Your task to perform on an android device: Open eBay Image 0: 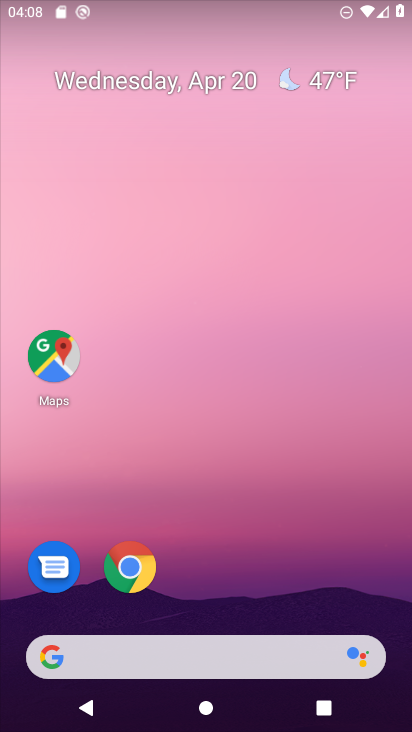
Step 0: click (116, 570)
Your task to perform on an android device: Open eBay Image 1: 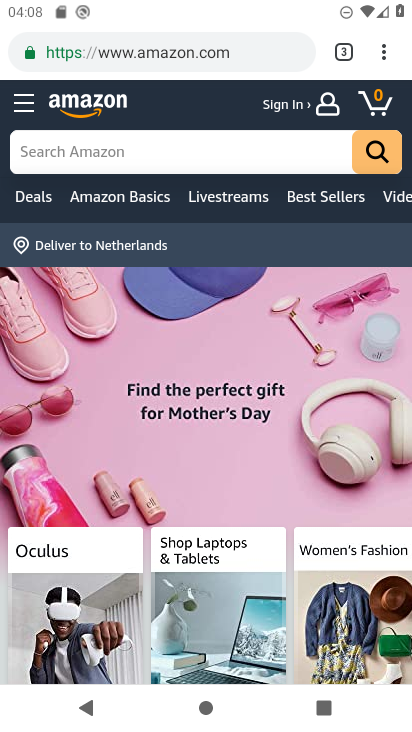
Step 1: click (345, 60)
Your task to perform on an android device: Open eBay Image 2: 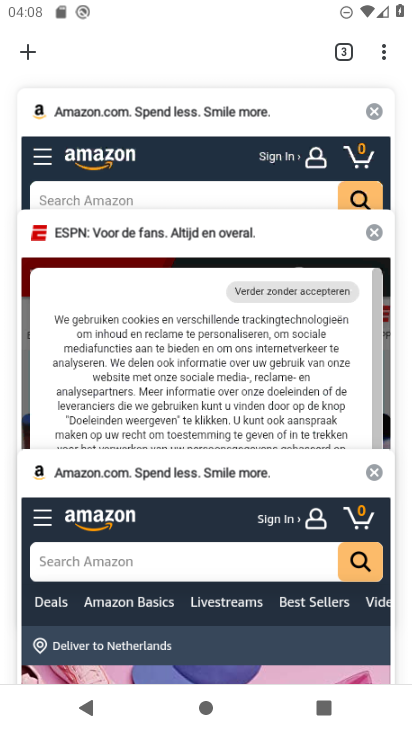
Step 2: click (21, 39)
Your task to perform on an android device: Open eBay Image 3: 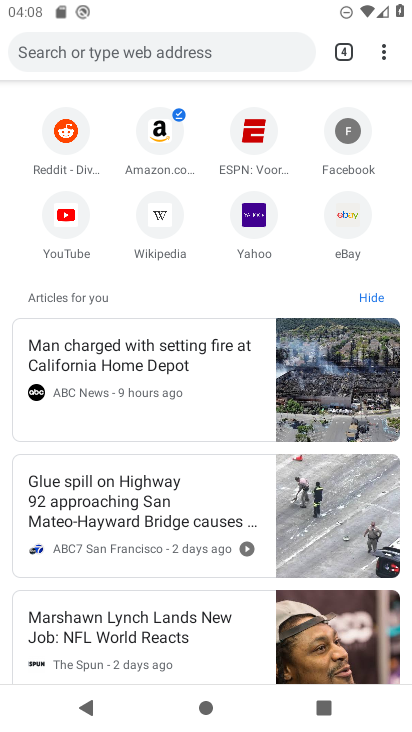
Step 3: click (345, 210)
Your task to perform on an android device: Open eBay Image 4: 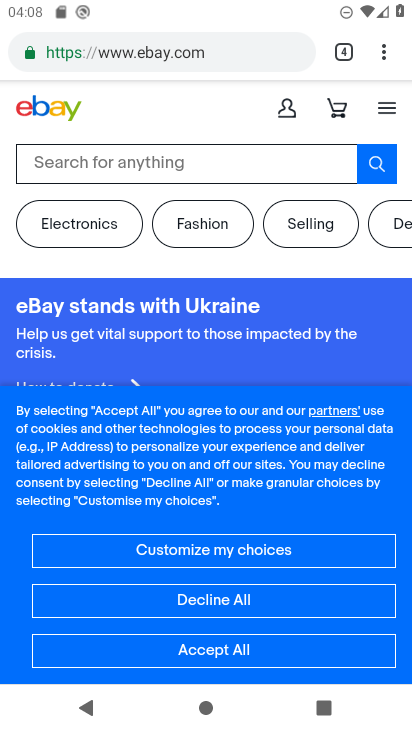
Step 4: task complete